Your task to perform on an android device: open sync settings in chrome Image 0: 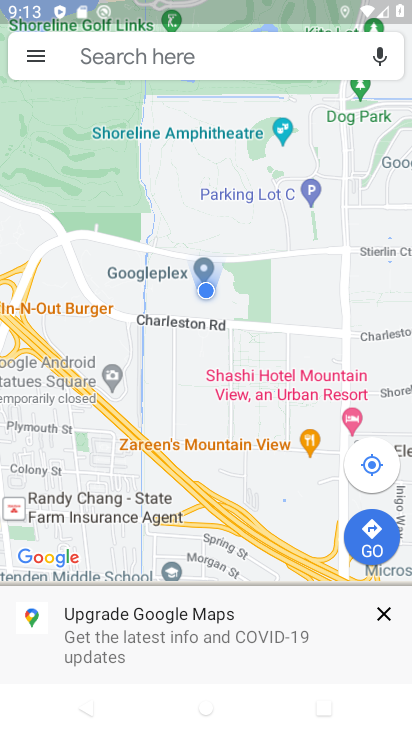
Step 0: press home button
Your task to perform on an android device: open sync settings in chrome Image 1: 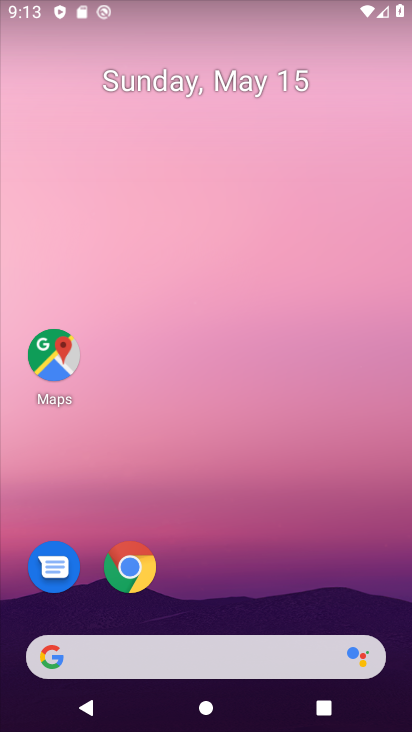
Step 1: click (155, 583)
Your task to perform on an android device: open sync settings in chrome Image 2: 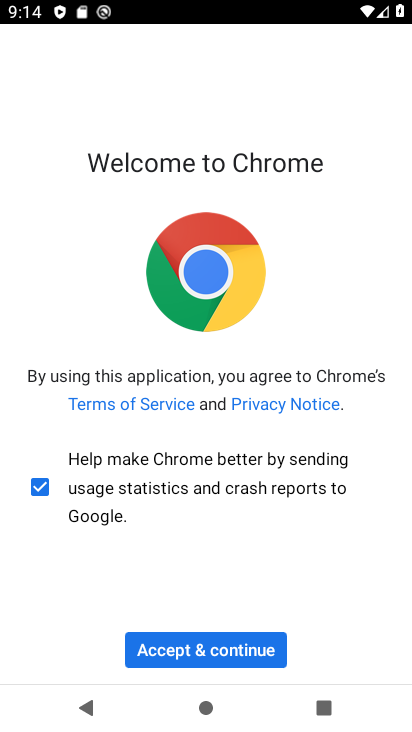
Step 2: click (257, 659)
Your task to perform on an android device: open sync settings in chrome Image 3: 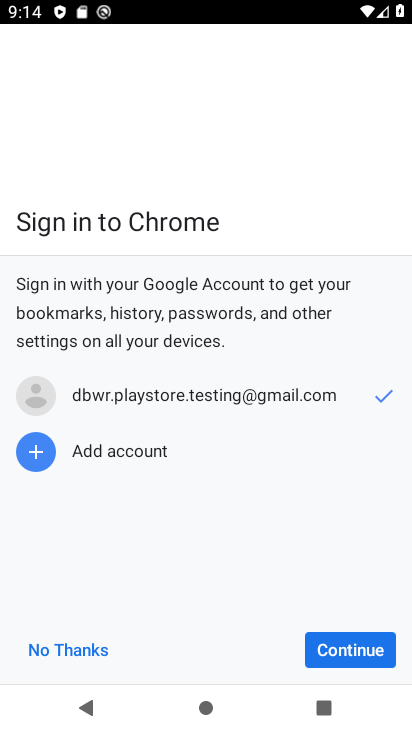
Step 3: click (334, 637)
Your task to perform on an android device: open sync settings in chrome Image 4: 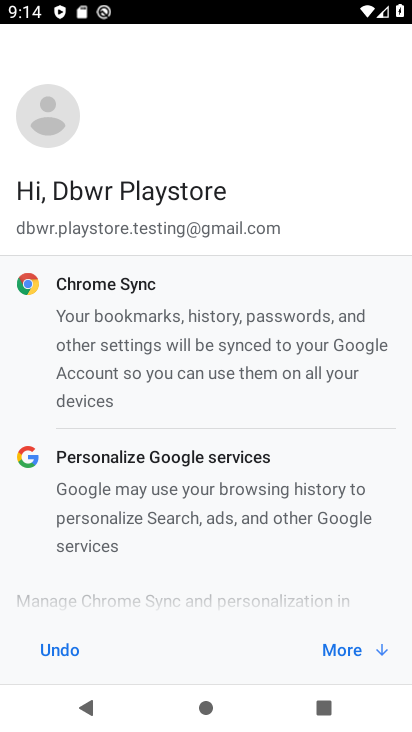
Step 4: click (338, 650)
Your task to perform on an android device: open sync settings in chrome Image 5: 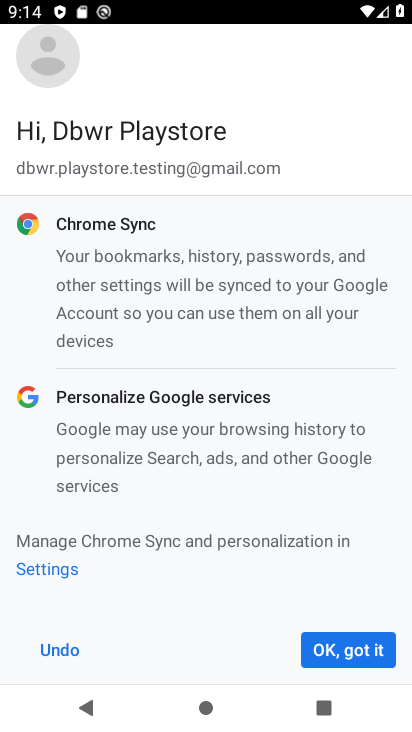
Step 5: click (338, 649)
Your task to perform on an android device: open sync settings in chrome Image 6: 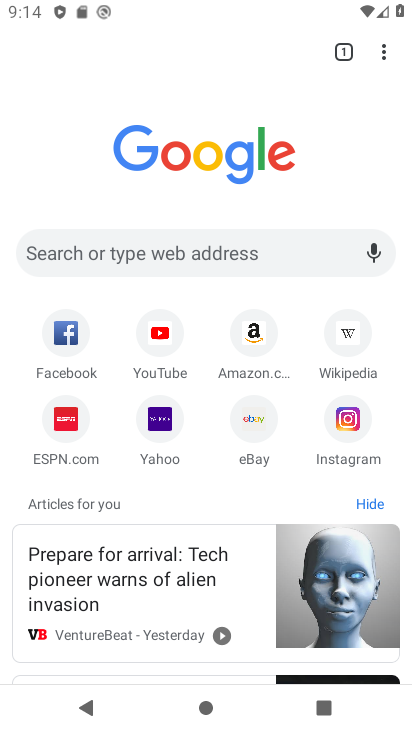
Step 6: click (390, 53)
Your task to perform on an android device: open sync settings in chrome Image 7: 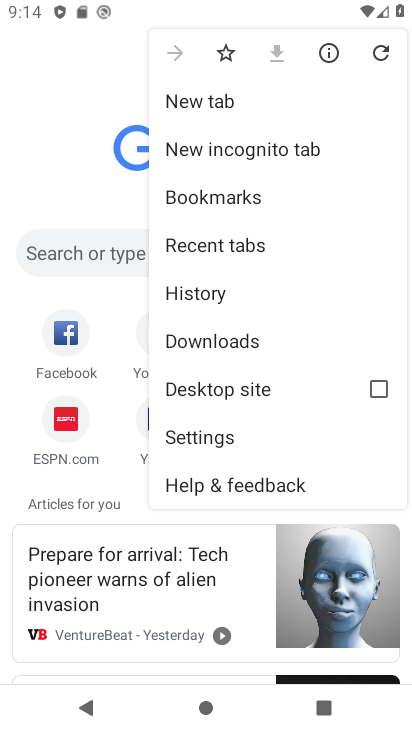
Step 7: click (256, 438)
Your task to perform on an android device: open sync settings in chrome Image 8: 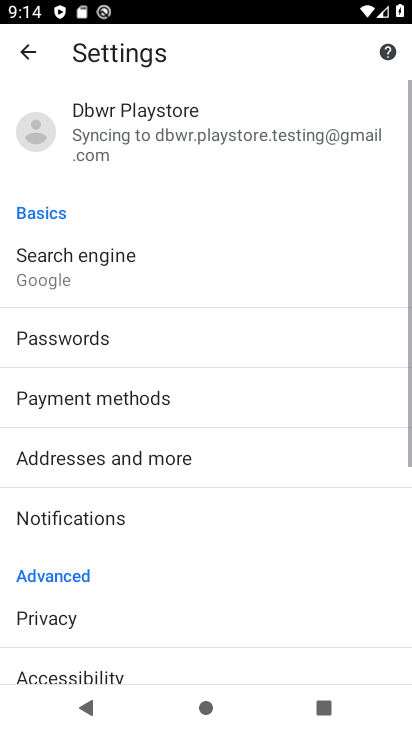
Step 8: click (170, 127)
Your task to perform on an android device: open sync settings in chrome Image 9: 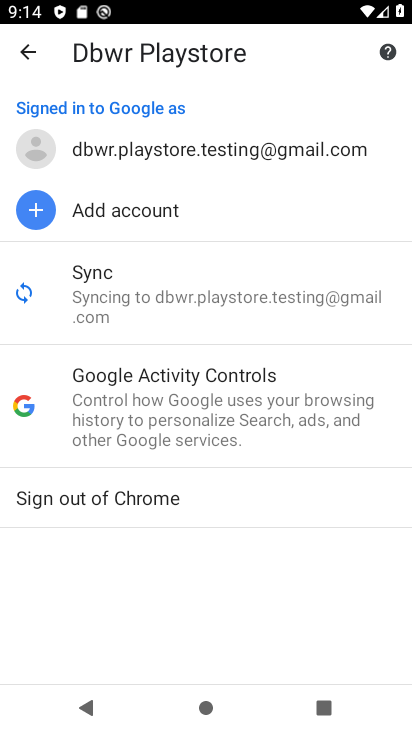
Step 9: click (140, 305)
Your task to perform on an android device: open sync settings in chrome Image 10: 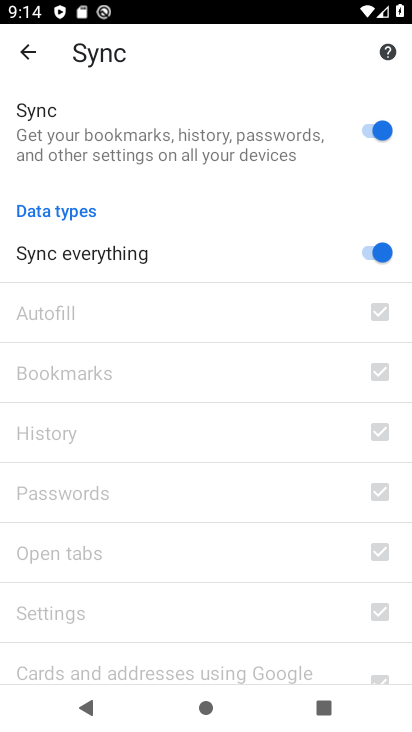
Step 10: task complete